Your task to perform on an android device: open app "Gboard" (install if not already installed) Image 0: 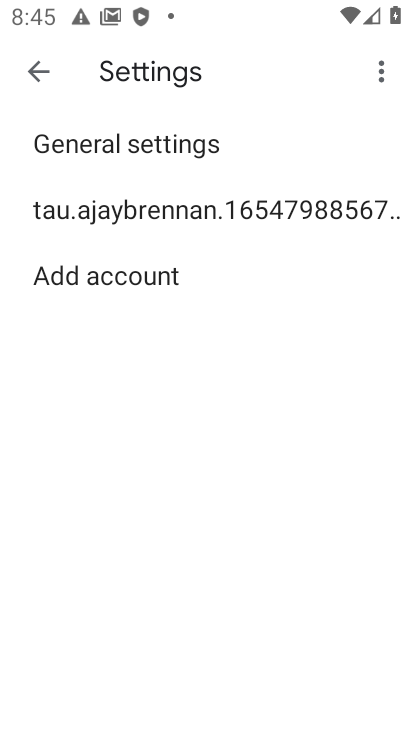
Step 0: press home button
Your task to perform on an android device: open app "Gboard" (install if not already installed) Image 1: 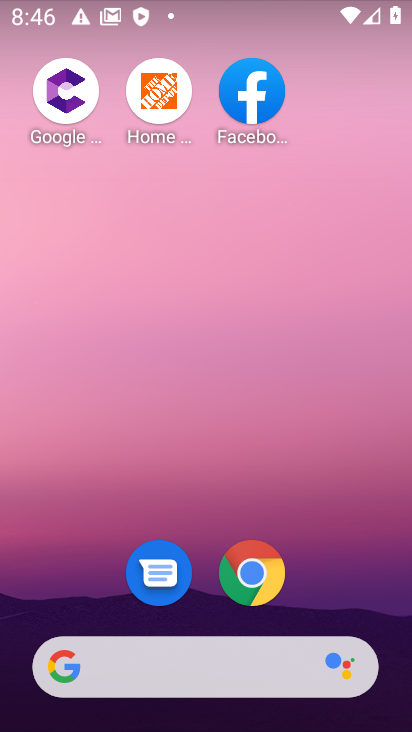
Step 1: drag from (182, 642) to (264, 0)
Your task to perform on an android device: open app "Gboard" (install if not already installed) Image 2: 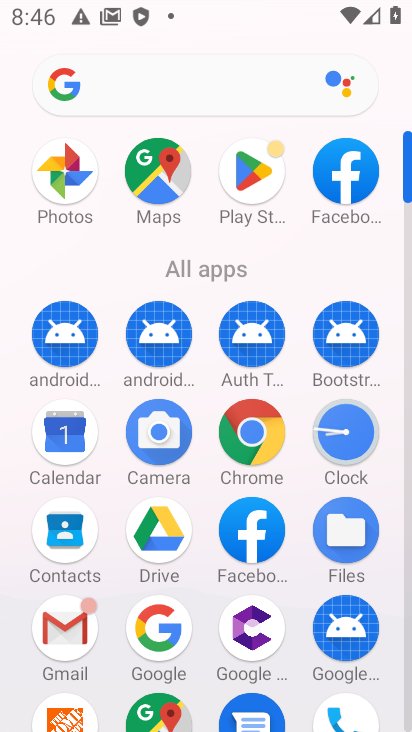
Step 2: click (268, 185)
Your task to perform on an android device: open app "Gboard" (install if not already installed) Image 3: 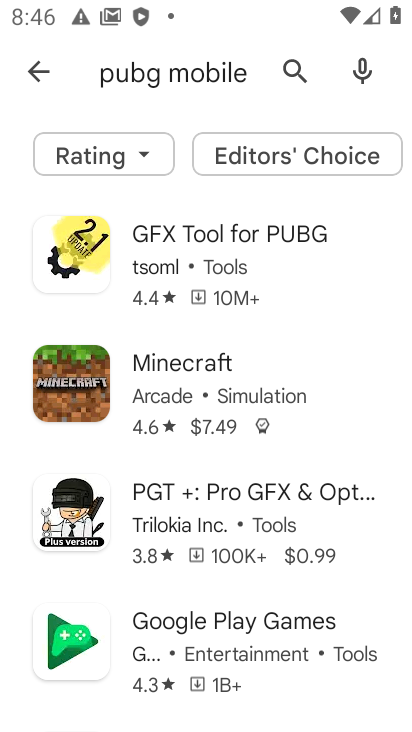
Step 3: click (283, 66)
Your task to perform on an android device: open app "Gboard" (install if not already installed) Image 4: 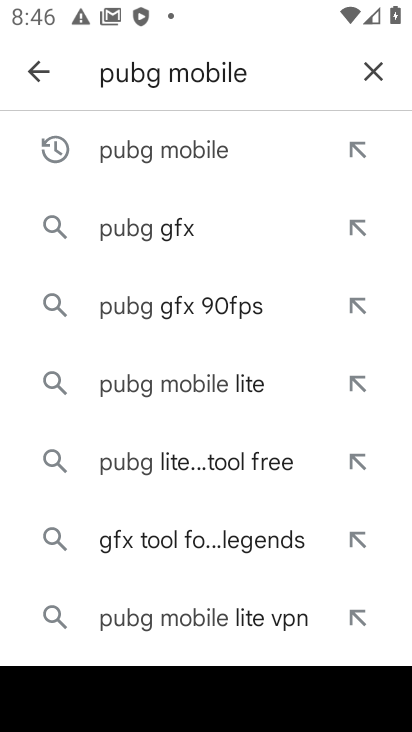
Step 4: click (367, 64)
Your task to perform on an android device: open app "Gboard" (install if not already installed) Image 5: 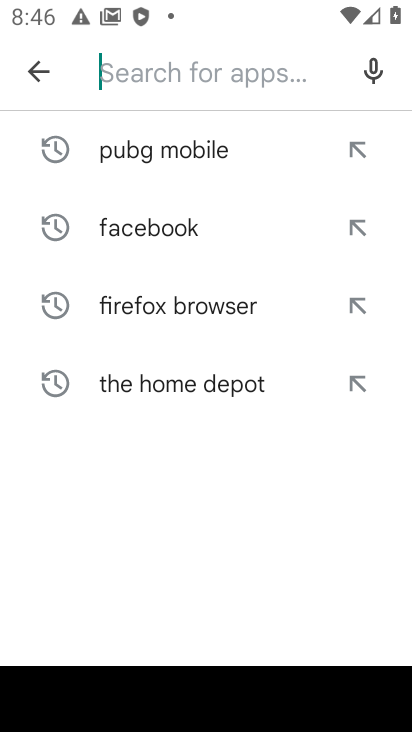
Step 5: type "gboard"
Your task to perform on an android device: open app "Gboard" (install if not already installed) Image 6: 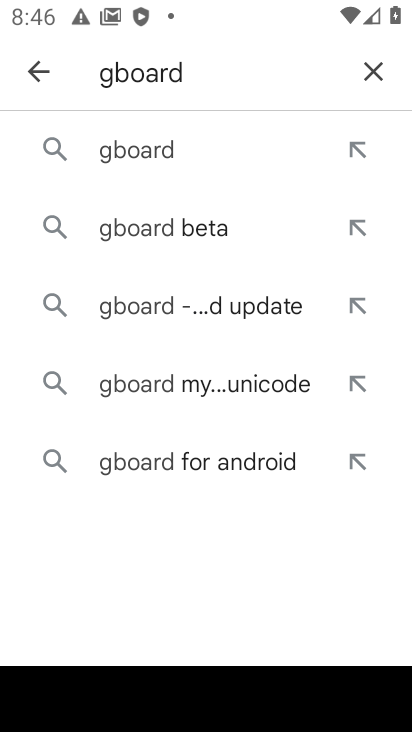
Step 6: click (197, 158)
Your task to perform on an android device: open app "Gboard" (install if not already installed) Image 7: 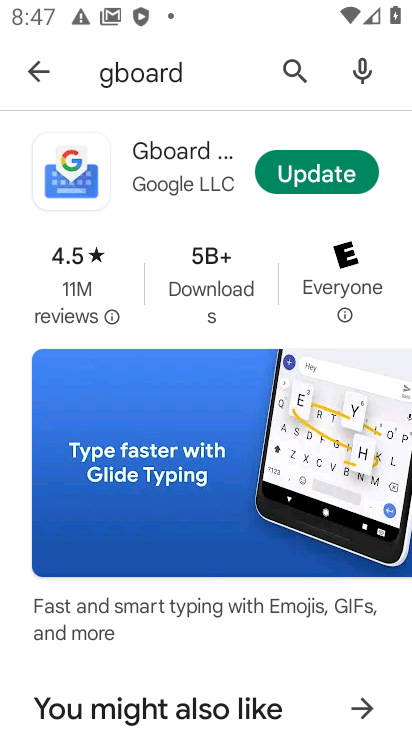
Step 7: task complete